Your task to perform on an android device: Go to Wikipedia Image 0: 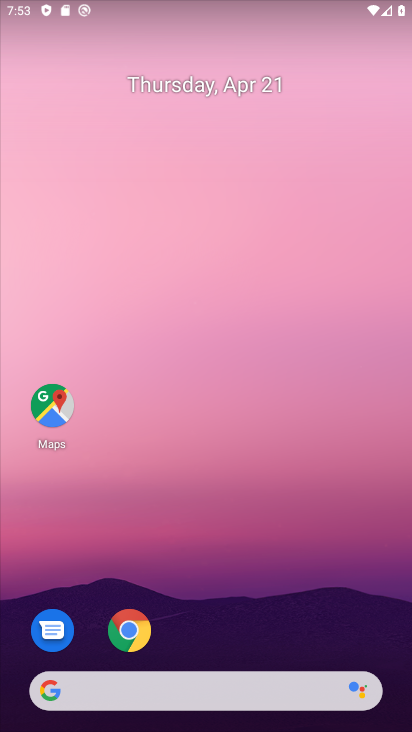
Step 0: click (123, 640)
Your task to perform on an android device: Go to Wikipedia Image 1: 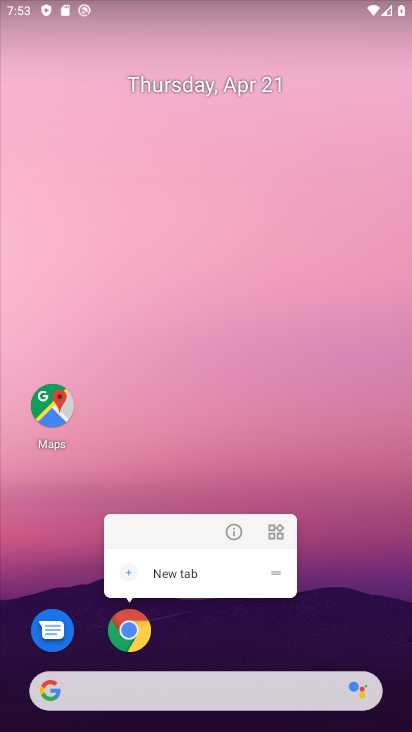
Step 1: click (123, 640)
Your task to perform on an android device: Go to Wikipedia Image 2: 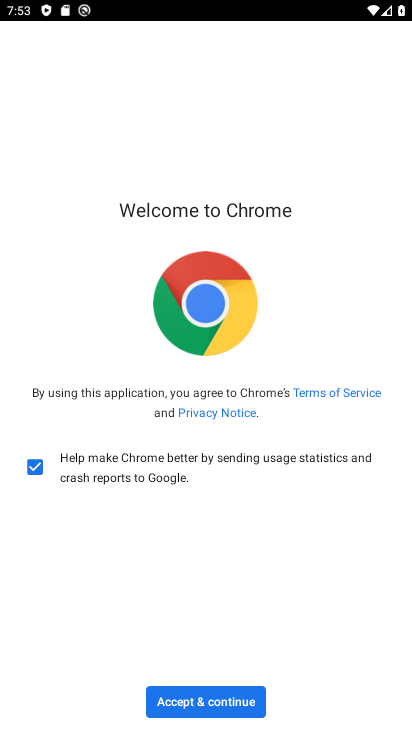
Step 2: click (208, 701)
Your task to perform on an android device: Go to Wikipedia Image 3: 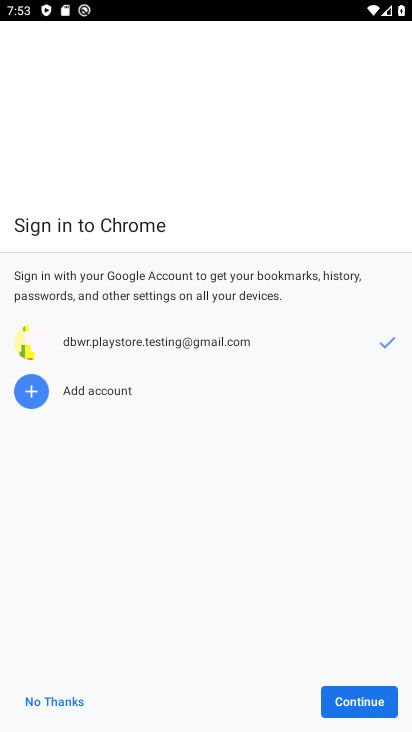
Step 3: click (354, 705)
Your task to perform on an android device: Go to Wikipedia Image 4: 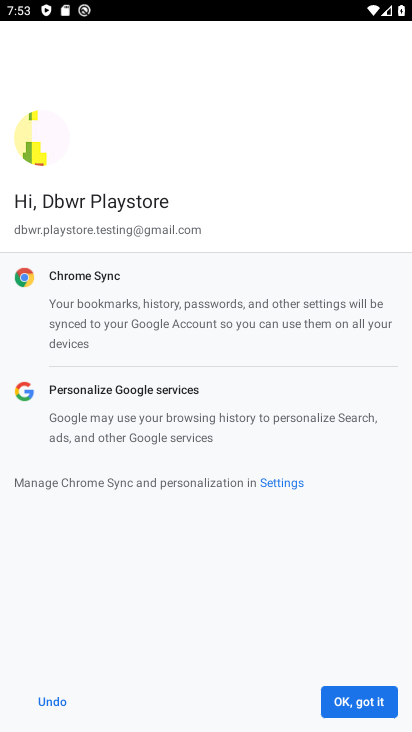
Step 4: click (354, 705)
Your task to perform on an android device: Go to Wikipedia Image 5: 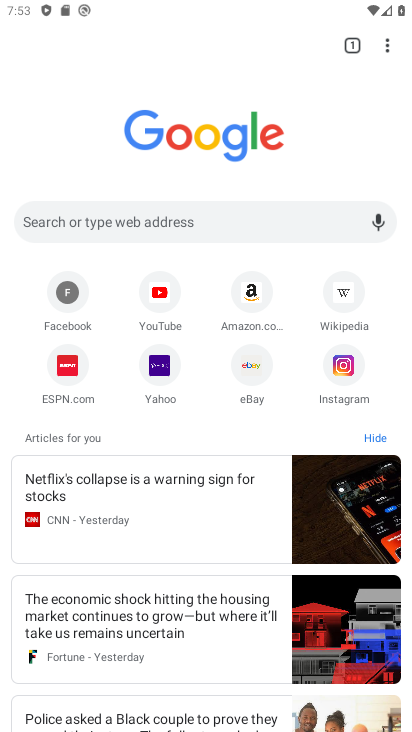
Step 5: click (341, 303)
Your task to perform on an android device: Go to Wikipedia Image 6: 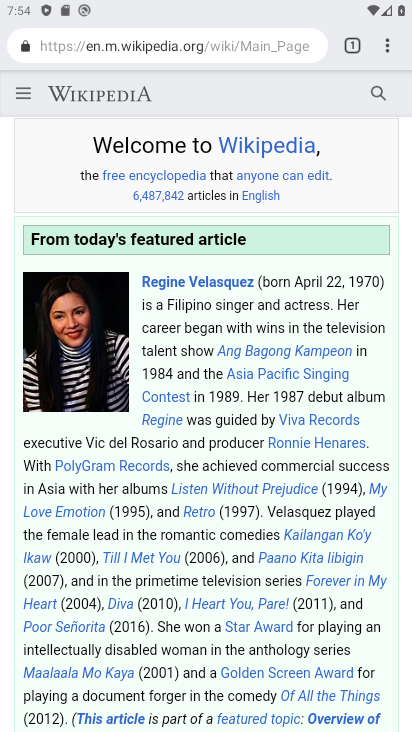
Step 6: task complete